Your task to perform on an android device: Open the stopwatch Image 0: 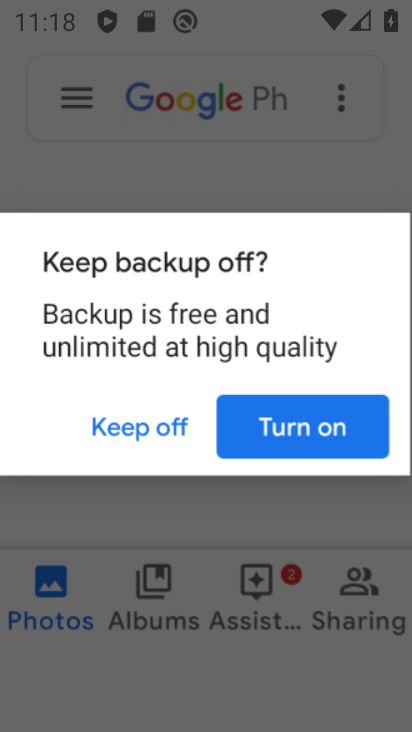
Step 0: drag from (170, 541) to (274, 69)
Your task to perform on an android device: Open the stopwatch Image 1: 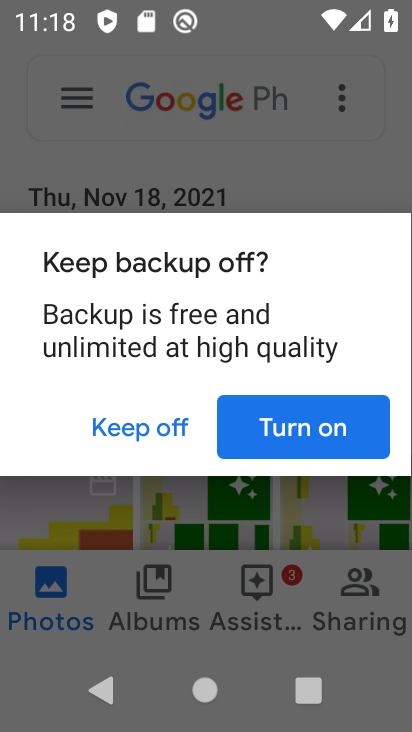
Step 1: press home button
Your task to perform on an android device: Open the stopwatch Image 2: 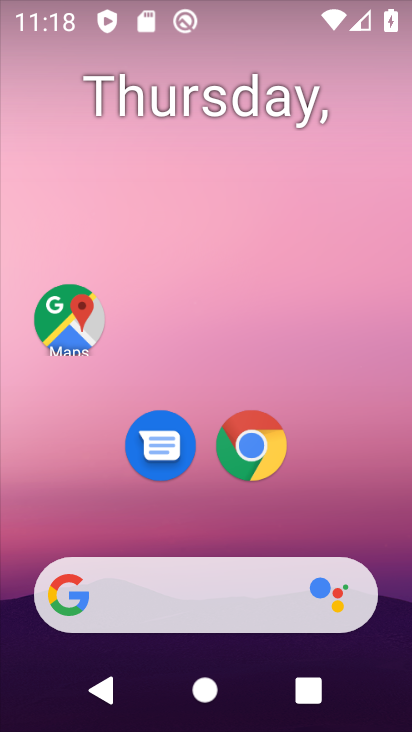
Step 2: drag from (263, 516) to (377, 93)
Your task to perform on an android device: Open the stopwatch Image 3: 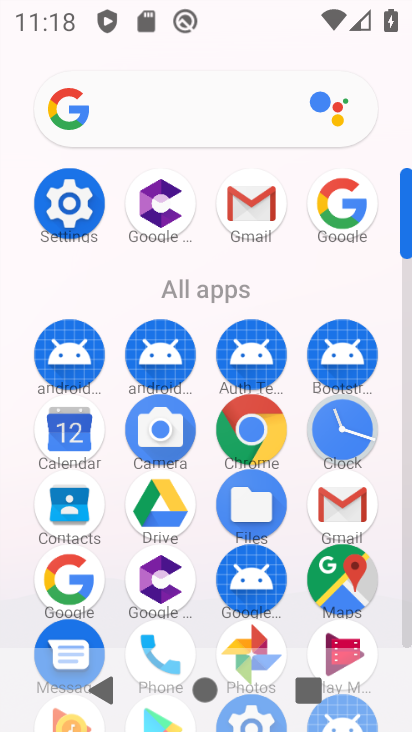
Step 3: click (331, 428)
Your task to perform on an android device: Open the stopwatch Image 4: 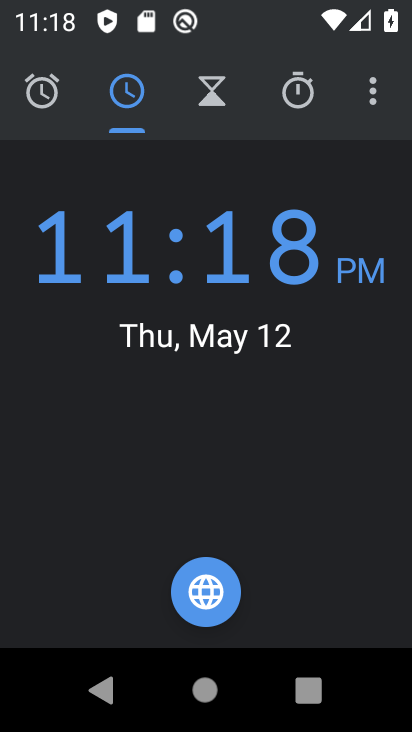
Step 4: click (295, 96)
Your task to perform on an android device: Open the stopwatch Image 5: 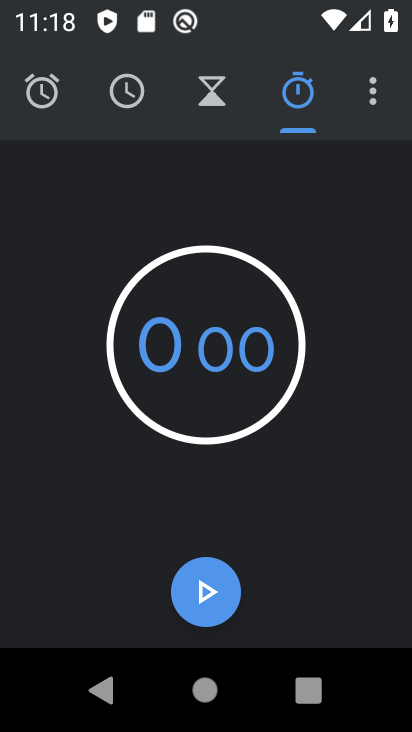
Step 5: task complete